Your task to perform on an android device: Go to Google Image 0: 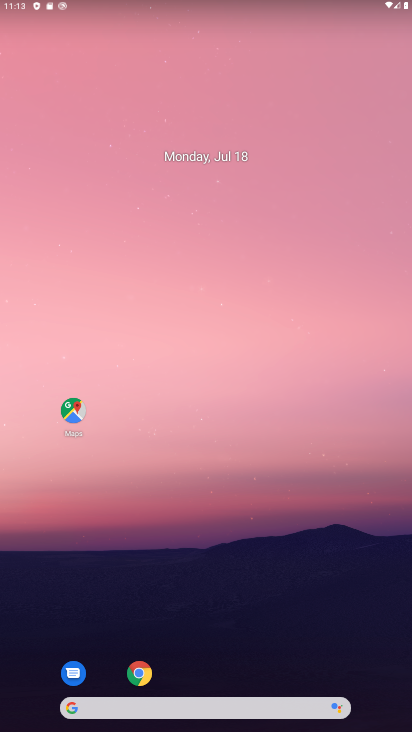
Step 0: press home button
Your task to perform on an android device: Go to Google Image 1: 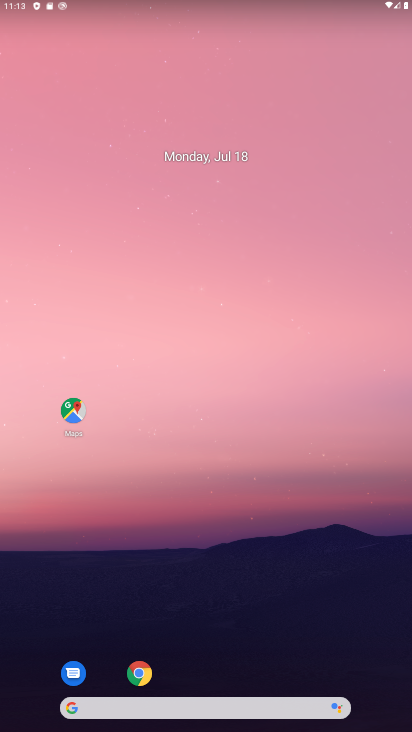
Step 1: drag from (200, 681) to (248, 13)
Your task to perform on an android device: Go to Google Image 2: 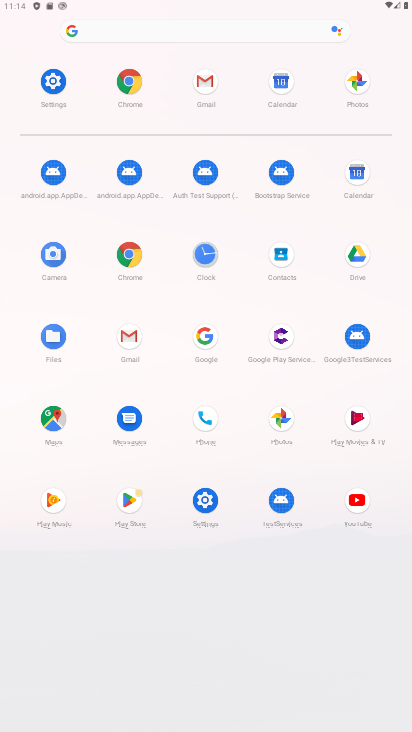
Step 2: click (203, 330)
Your task to perform on an android device: Go to Google Image 3: 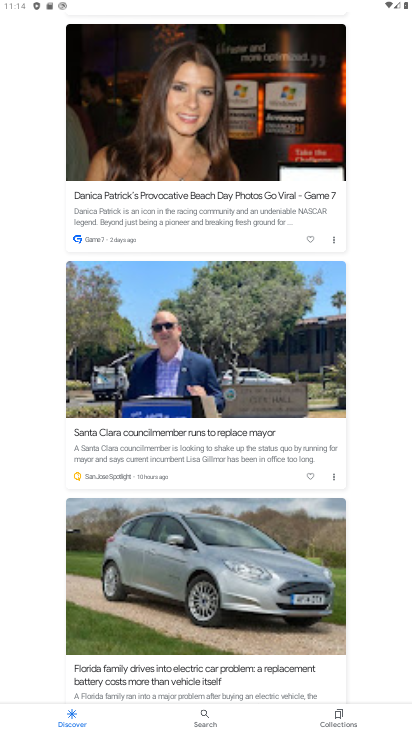
Step 3: drag from (233, 676) to (218, 134)
Your task to perform on an android device: Go to Google Image 4: 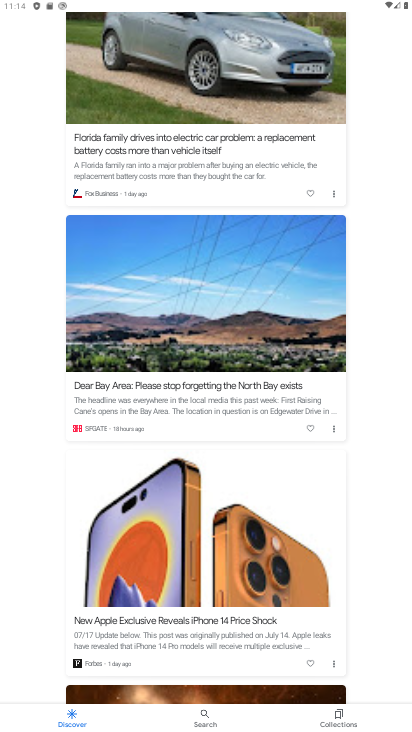
Step 4: click (200, 711)
Your task to perform on an android device: Go to Google Image 5: 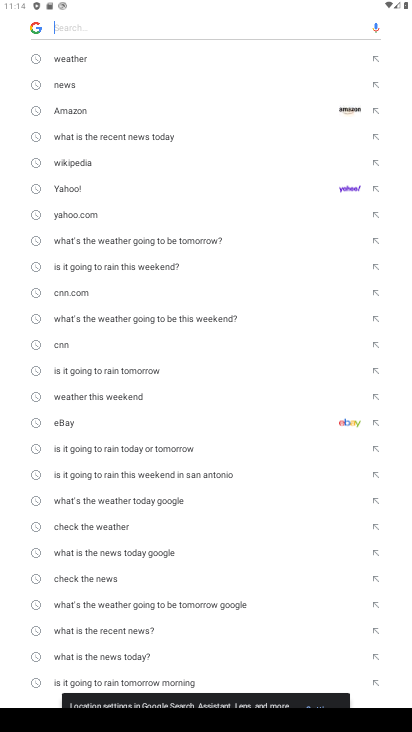
Step 5: task complete